Your task to perform on an android device: add a contact in the contacts app Image 0: 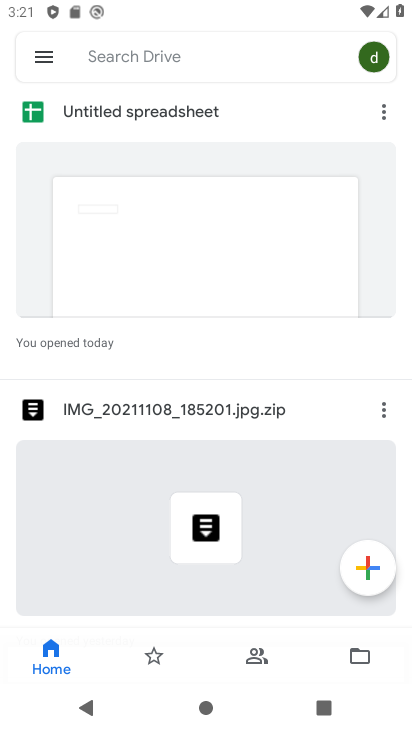
Step 0: press home button
Your task to perform on an android device: add a contact in the contacts app Image 1: 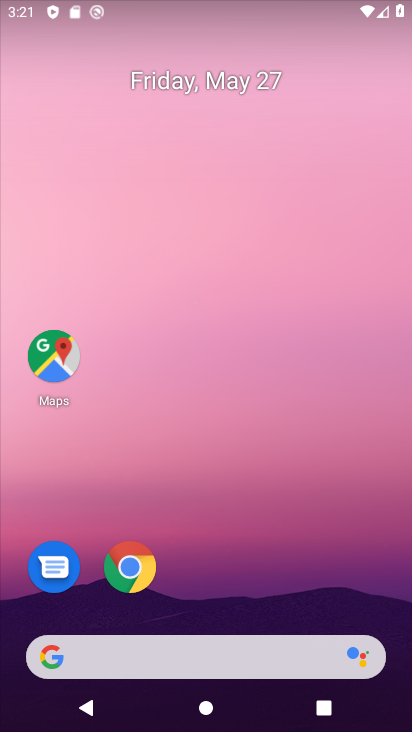
Step 1: drag from (388, 584) to (316, 51)
Your task to perform on an android device: add a contact in the contacts app Image 2: 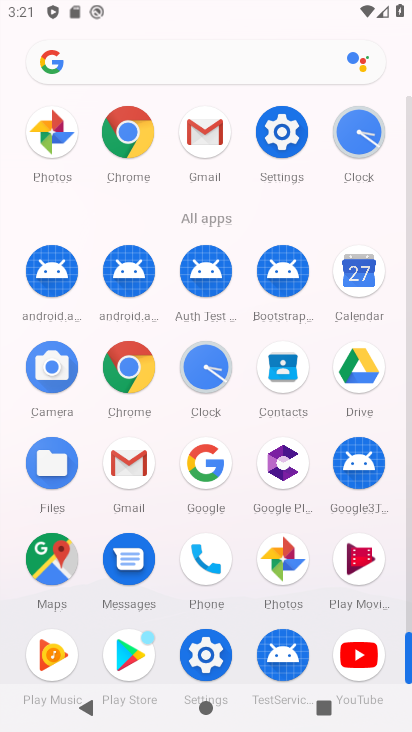
Step 2: click (283, 365)
Your task to perform on an android device: add a contact in the contacts app Image 3: 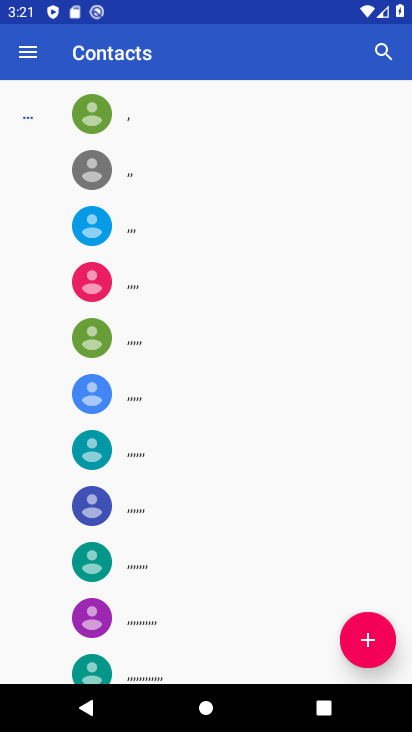
Step 3: click (367, 626)
Your task to perform on an android device: add a contact in the contacts app Image 4: 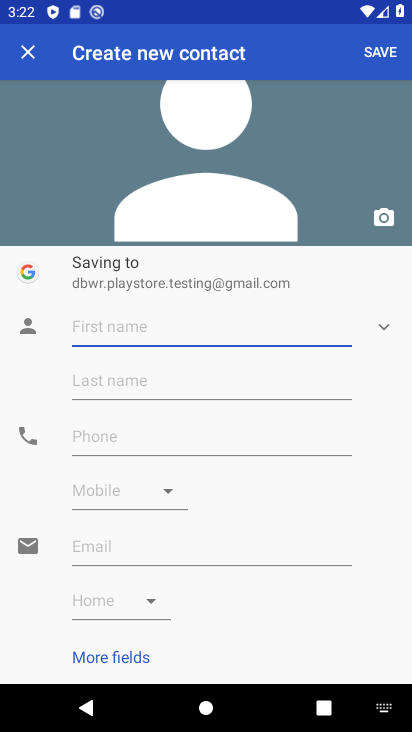
Step 4: type "nmnncgbxbx"
Your task to perform on an android device: add a contact in the contacts app Image 5: 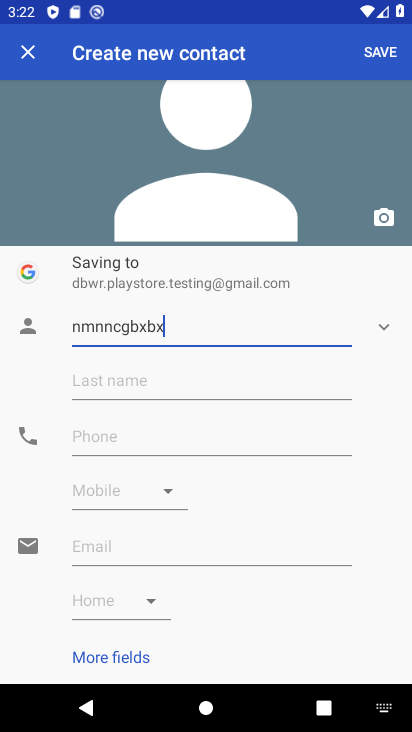
Step 5: click (111, 433)
Your task to perform on an android device: add a contact in the contacts app Image 6: 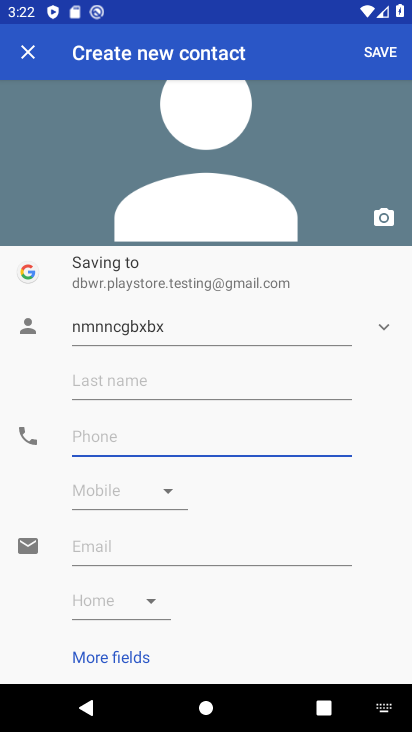
Step 6: type "0987654"
Your task to perform on an android device: add a contact in the contacts app Image 7: 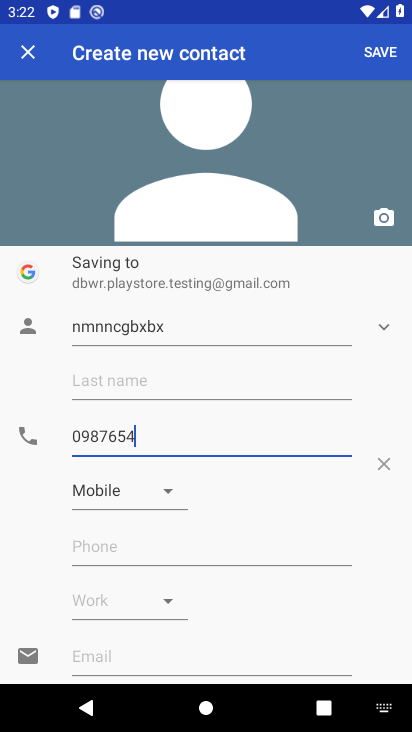
Step 7: click (153, 474)
Your task to perform on an android device: add a contact in the contacts app Image 8: 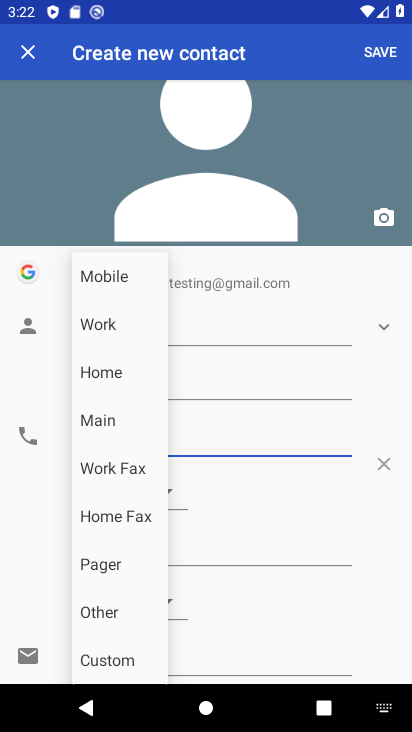
Step 8: click (100, 330)
Your task to perform on an android device: add a contact in the contacts app Image 9: 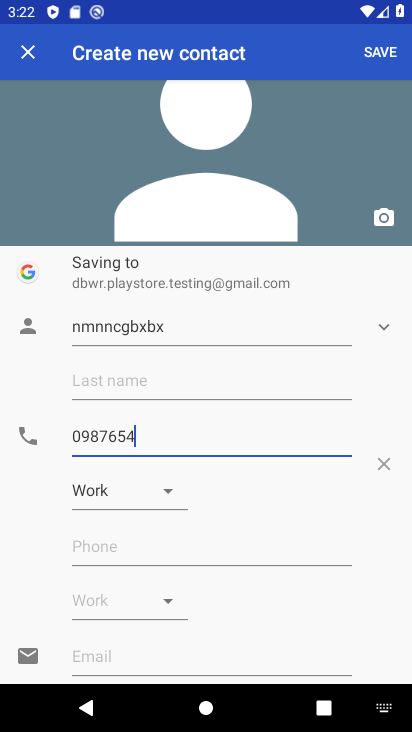
Step 9: click (383, 47)
Your task to perform on an android device: add a contact in the contacts app Image 10: 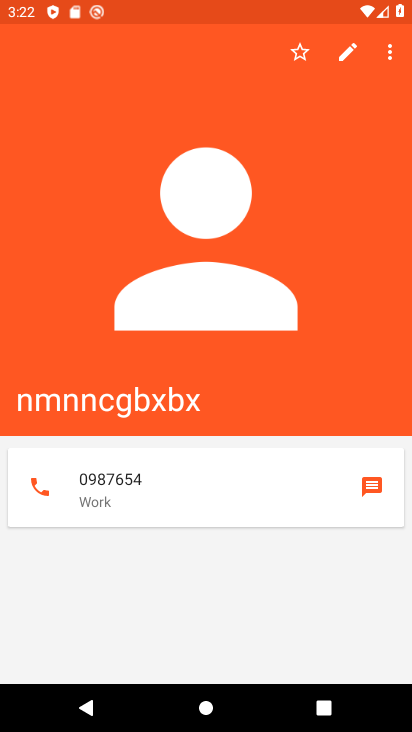
Step 10: task complete